Your task to perform on an android device: Open the Play Movies app and select the watchlist tab. Image 0: 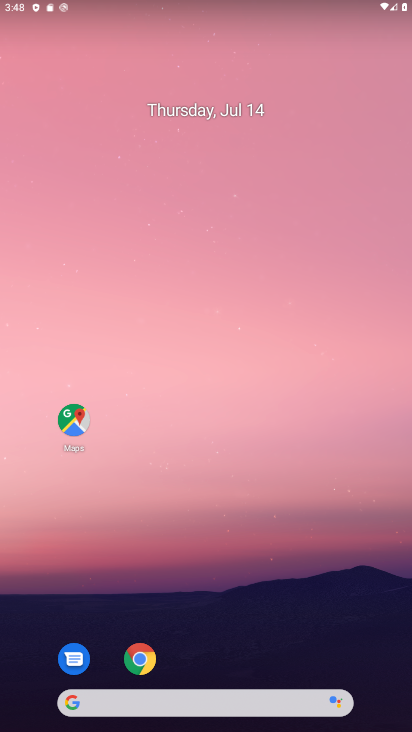
Step 0: click (232, 249)
Your task to perform on an android device: Open the Play Movies app and select the watchlist tab. Image 1: 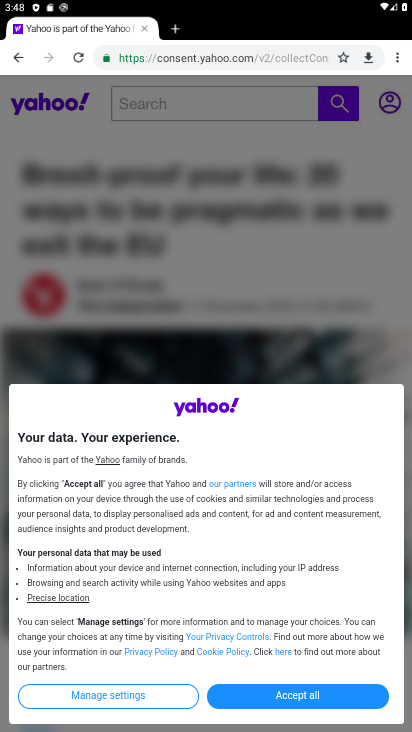
Step 1: press back button
Your task to perform on an android device: Open the Play Movies app and select the watchlist tab. Image 2: 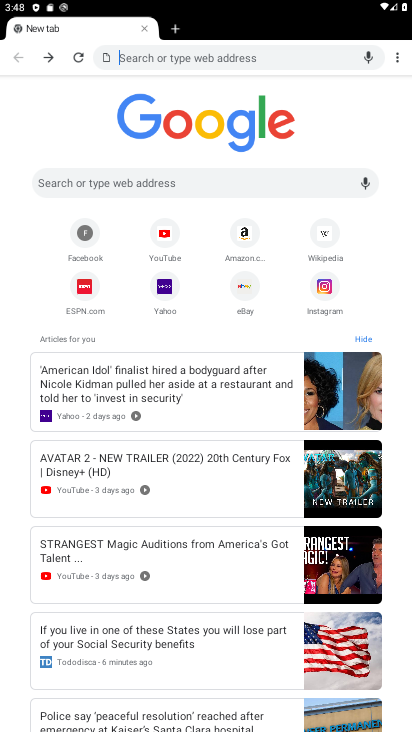
Step 2: press home button
Your task to perform on an android device: Open the Play Movies app and select the watchlist tab. Image 3: 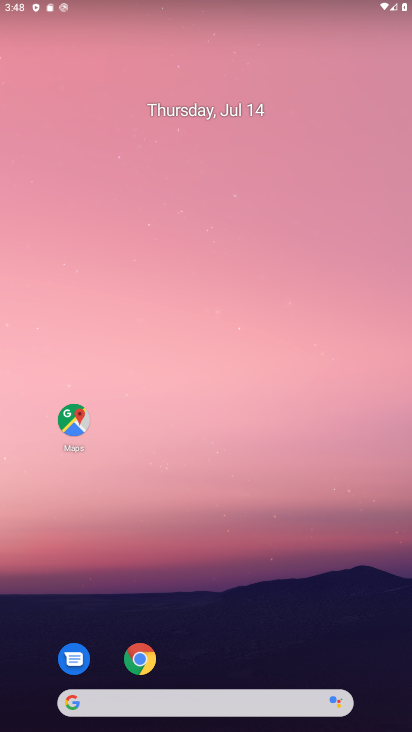
Step 3: drag from (287, 730) to (220, 217)
Your task to perform on an android device: Open the Play Movies app and select the watchlist tab. Image 4: 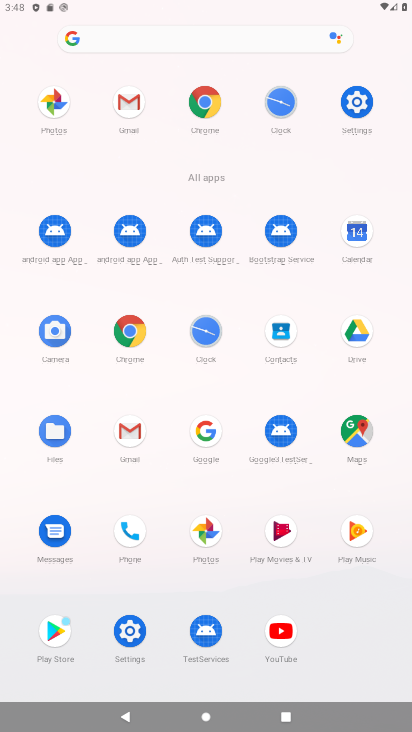
Step 4: click (282, 532)
Your task to perform on an android device: Open the Play Movies app and select the watchlist tab. Image 5: 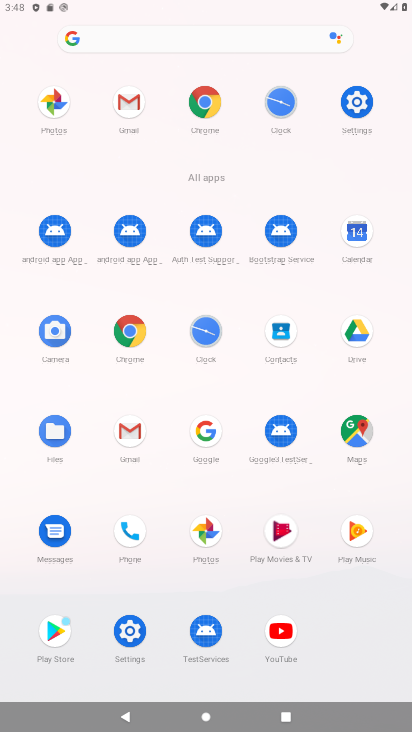
Step 5: click (282, 532)
Your task to perform on an android device: Open the Play Movies app and select the watchlist tab. Image 6: 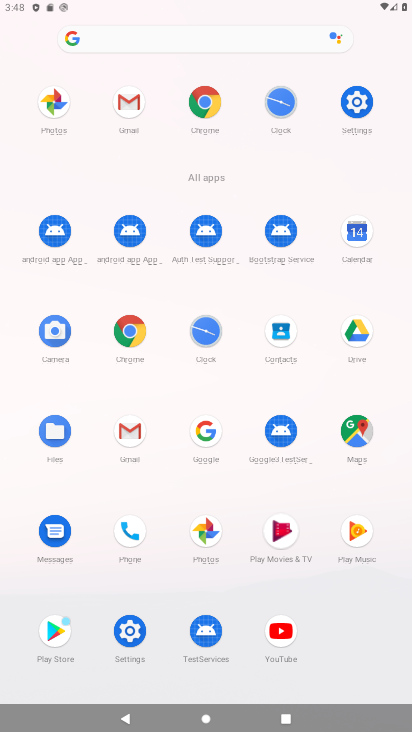
Step 6: click (282, 532)
Your task to perform on an android device: Open the Play Movies app and select the watchlist tab. Image 7: 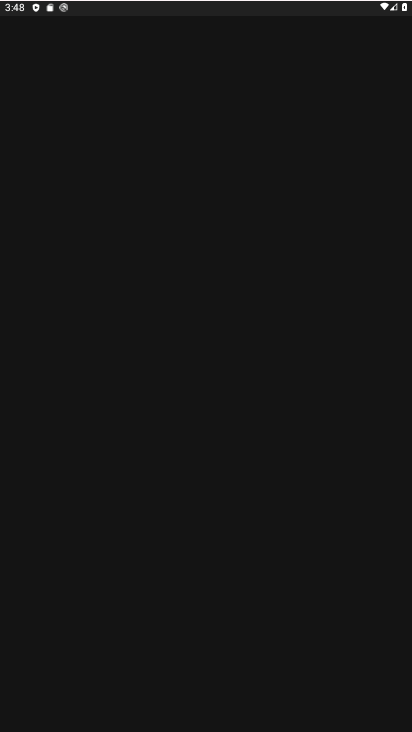
Step 7: click (280, 531)
Your task to perform on an android device: Open the Play Movies app and select the watchlist tab. Image 8: 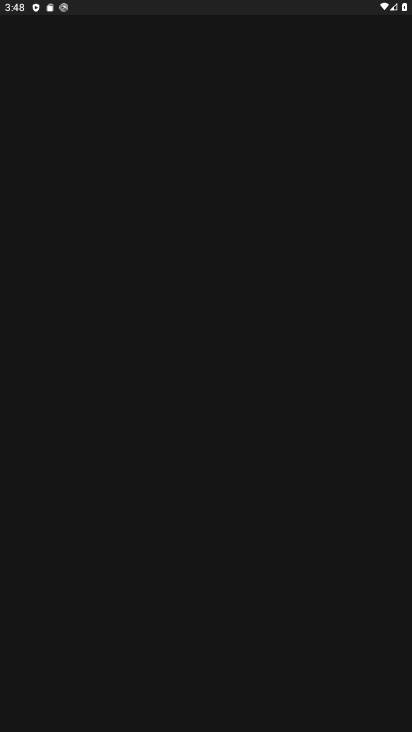
Step 8: click (280, 530)
Your task to perform on an android device: Open the Play Movies app and select the watchlist tab. Image 9: 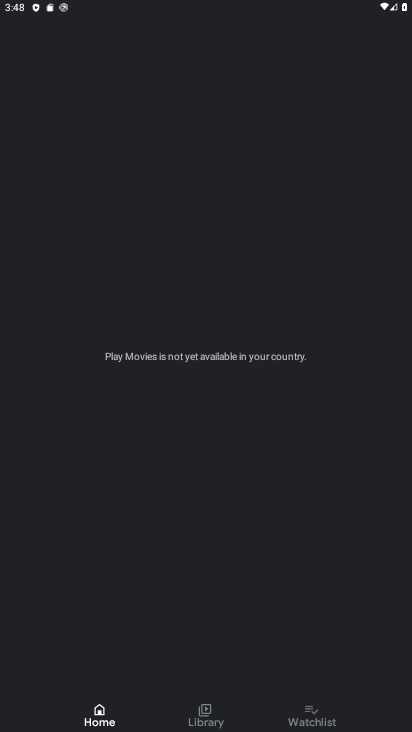
Step 9: click (318, 702)
Your task to perform on an android device: Open the Play Movies app and select the watchlist tab. Image 10: 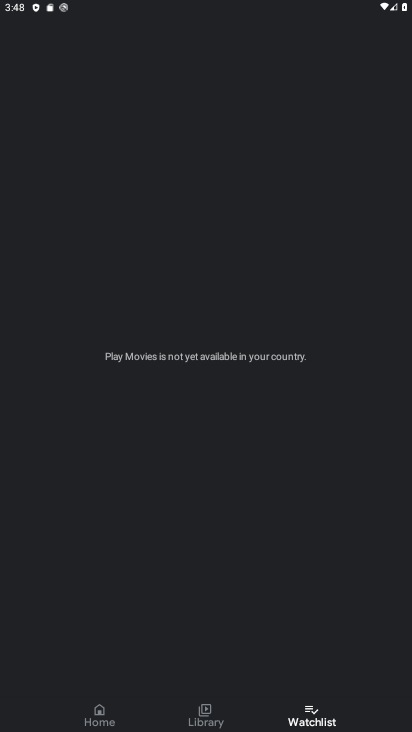
Step 10: task complete